Your task to perform on an android device: turn off data saver in the chrome app Image 0: 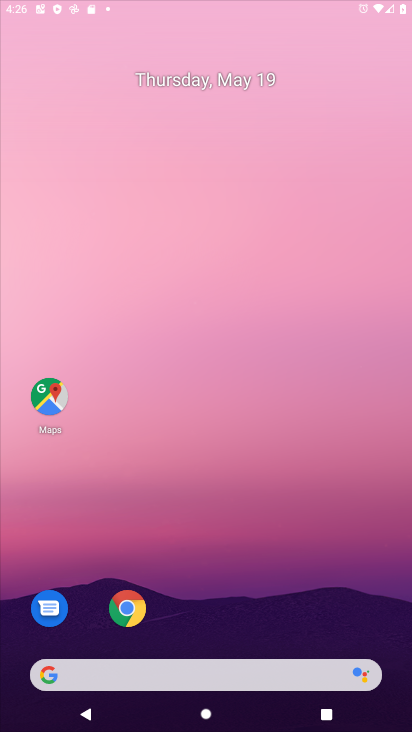
Step 0: drag from (228, 641) to (216, 233)
Your task to perform on an android device: turn off data saver in the chrome app Image 1: 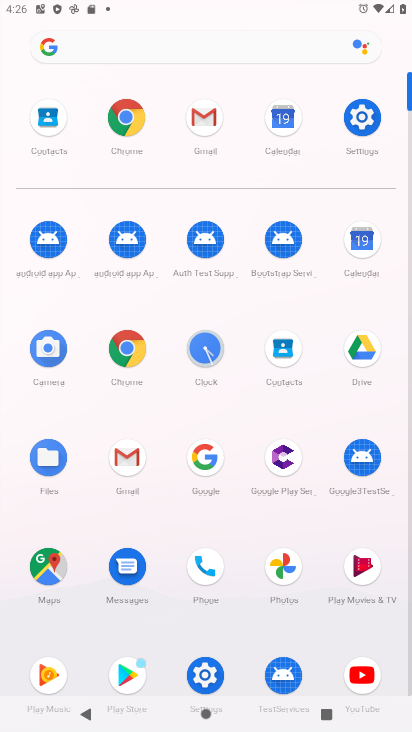
Step 1: click (126, 116)
Your task to perform on an android device: turn off data saver in the chrome app Image 2: 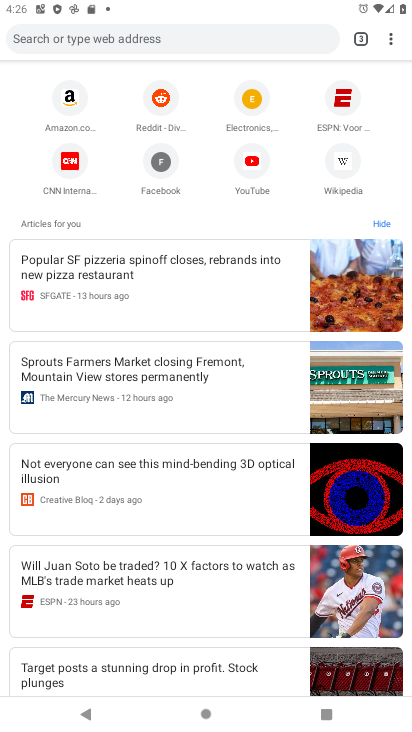
Step 2: click (388, 41)
Your task to perform on an android device: turn off data saver in the chrome app Image 3: 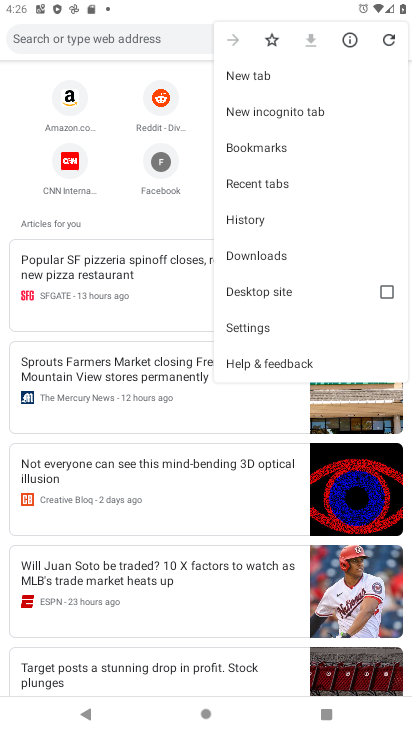
Step 3: click (283, 319)
Your task to perform on an android device: turn off data saver in the chrome app Image 4: 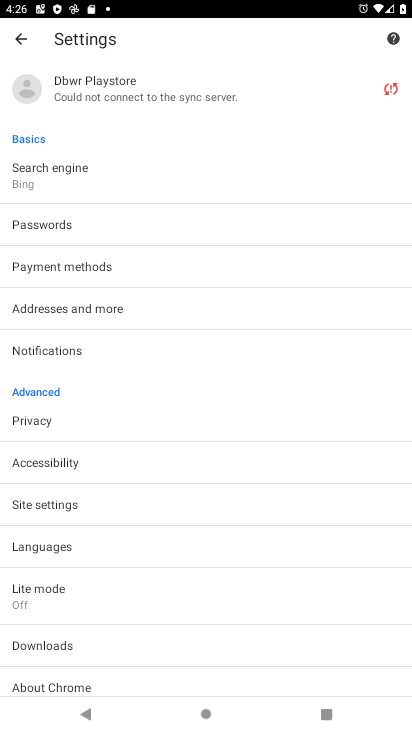
Step 4: click (106, 597)
Your task to perform on an android device: turn off data saver in the chrome app Image 5: 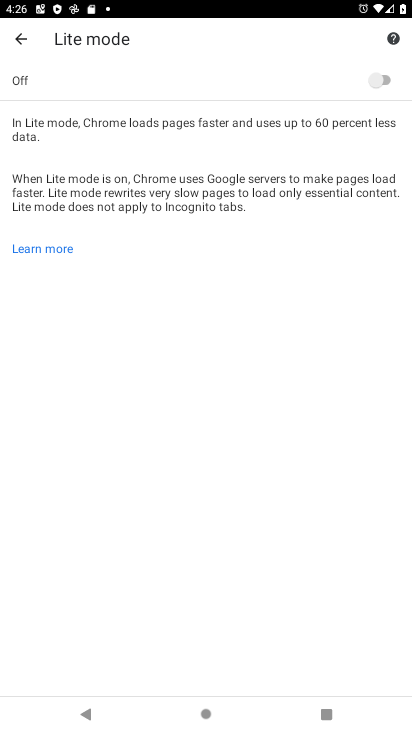
Step 5: task complete